Your task to perform on an android device: Turn on the flashlight Image 0: 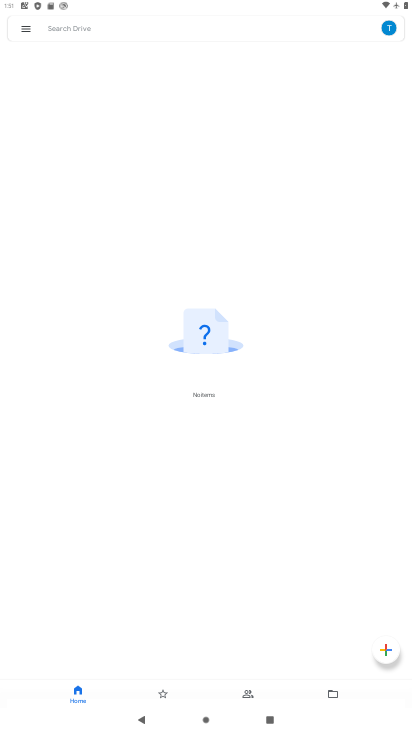
Step 0: press home button
Your task to perform on an android device: Turn on the flashlight Image 1: 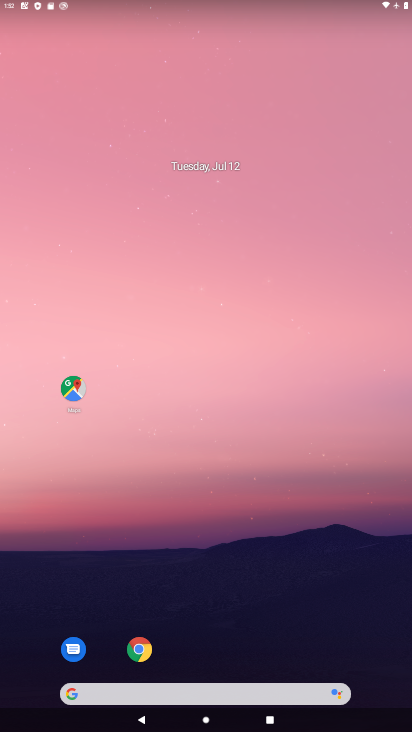
Step 1: drag from (262, 616) to (252, 477)
Your task to perform on an android device: Turn on the flashlight Image 2: 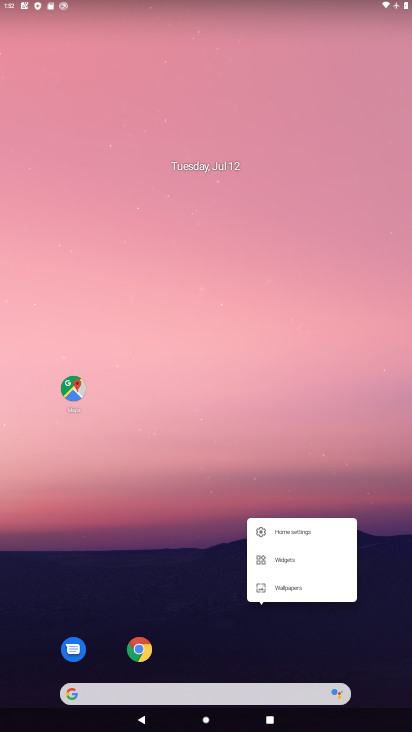
Step 2: click (202, 527)
Your task to perform on an android device: Turn on the flashlight Image 3: 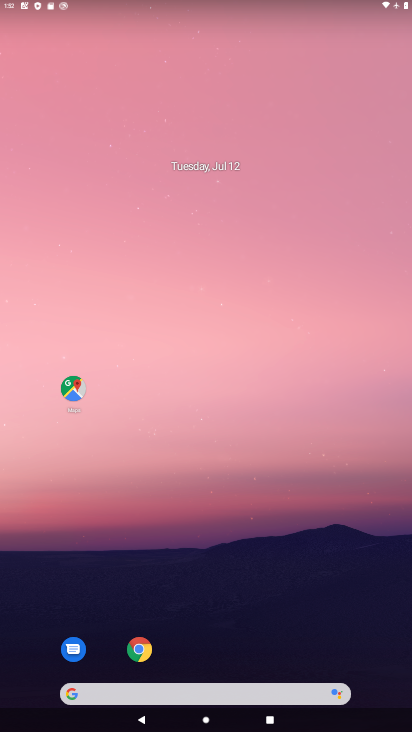
Step 3: drag from (223, 641) to (248, 167)
Your task to perform on an android device: Turn on the flashlight Image 4: 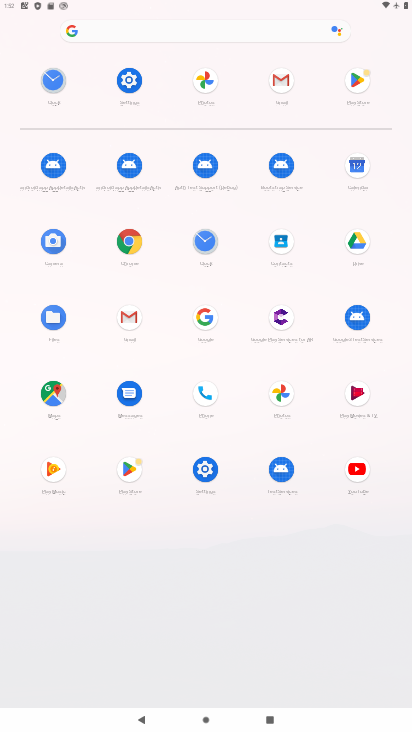
Step 4: click (126, 77)
Your task to perform on an android device: Turn on the flashlight Image 5: 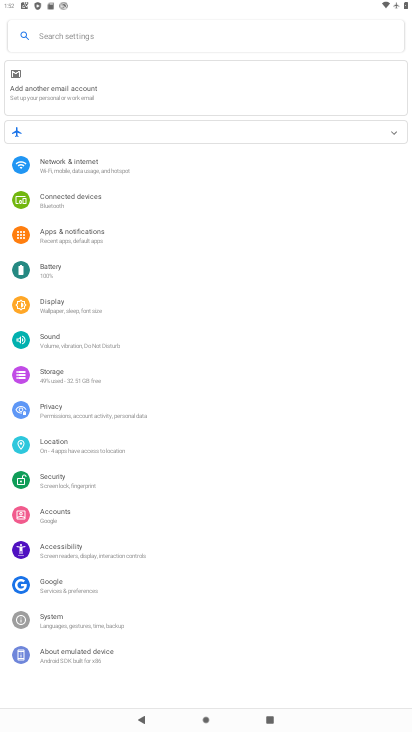
Step 5: task complete